Your task to perform on an android device: change alarm snooze length Image 0: 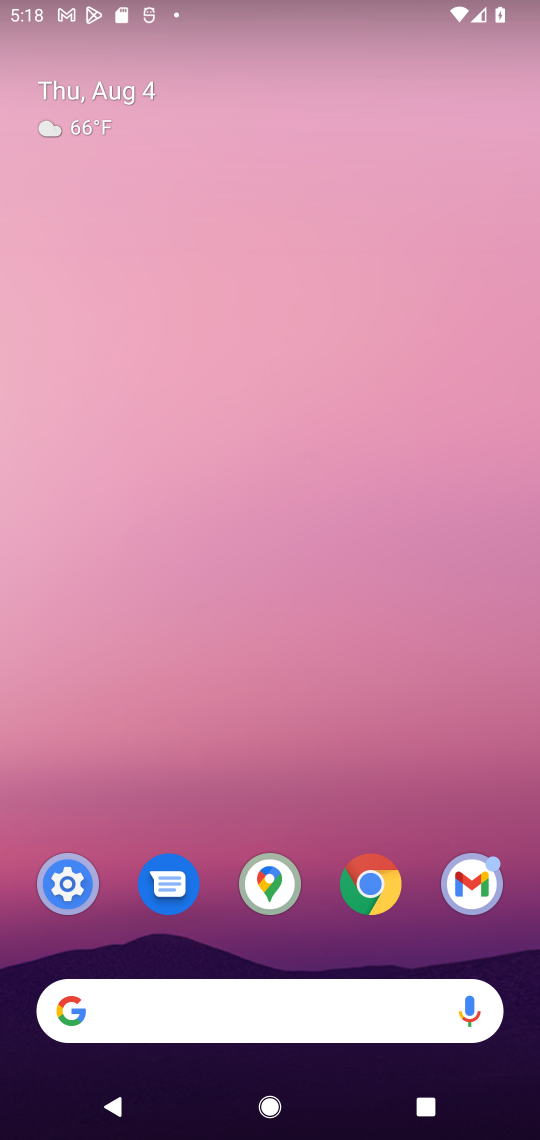
Step 0: drag from (212, 965) to (210, 323)
Your task to perform on an android device: change alarm snooze length Image 1: 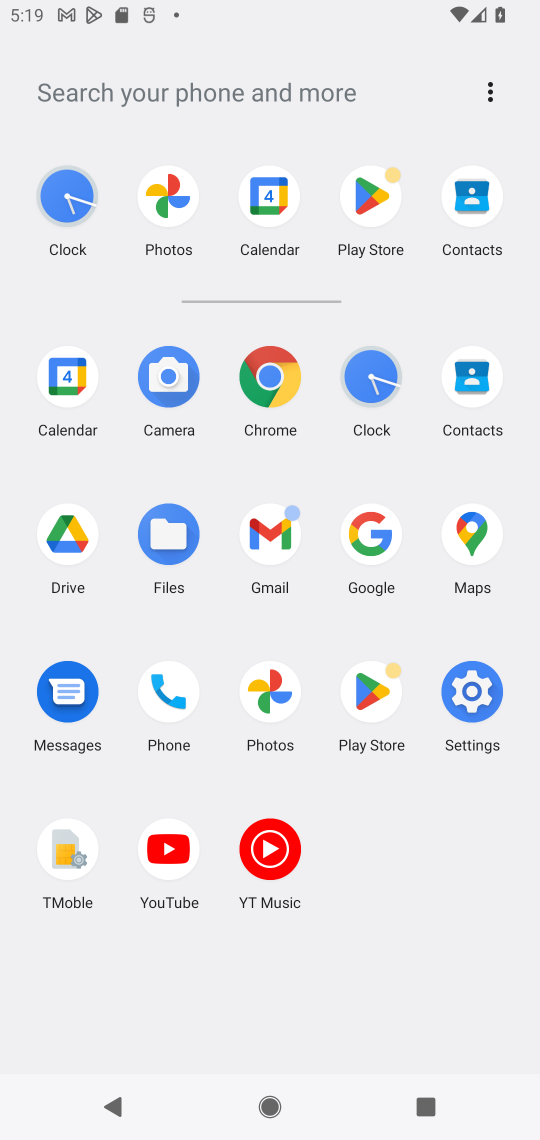
Step 1: click (479, 676)
Your task to perform on an android device: change alarm snooze length Image 2: 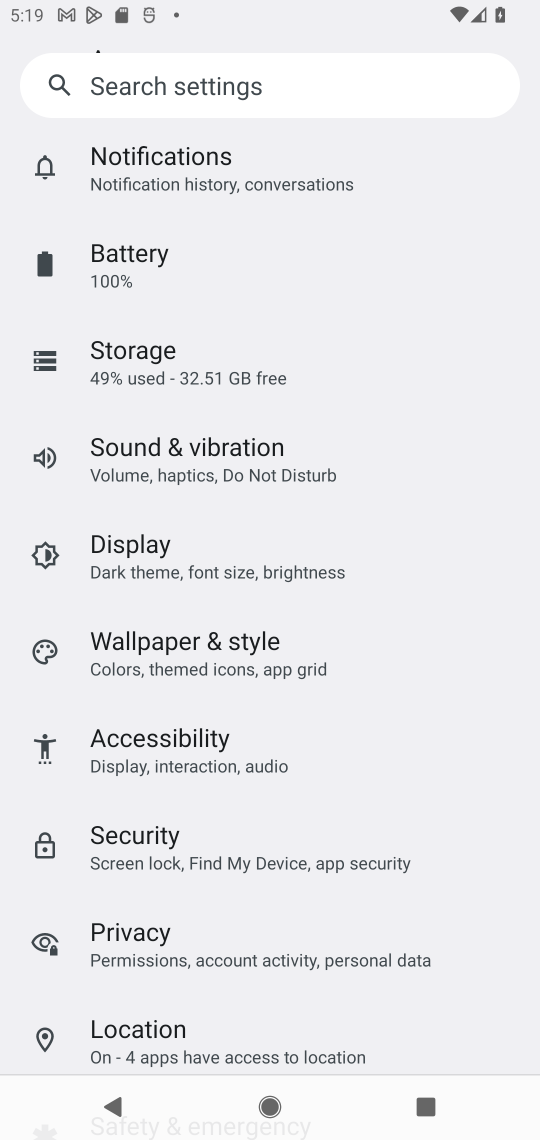
Step 2: press back button
Your task to perform on an android device: change alarm snooze length Image 3: 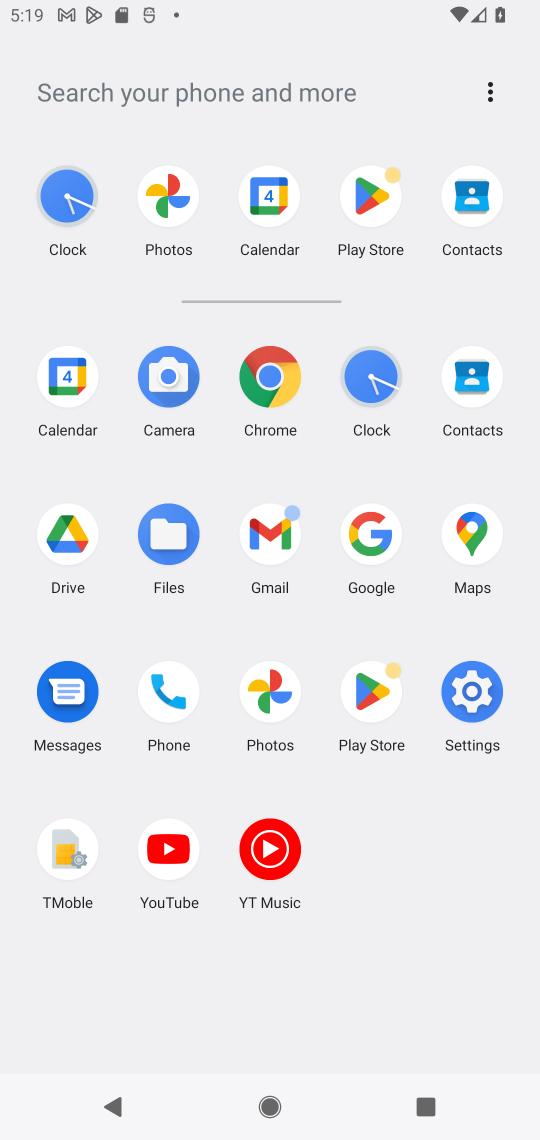
Step 3: click (371, 414)
Your task to perform on an android device: change alarm snooze length Image 4: 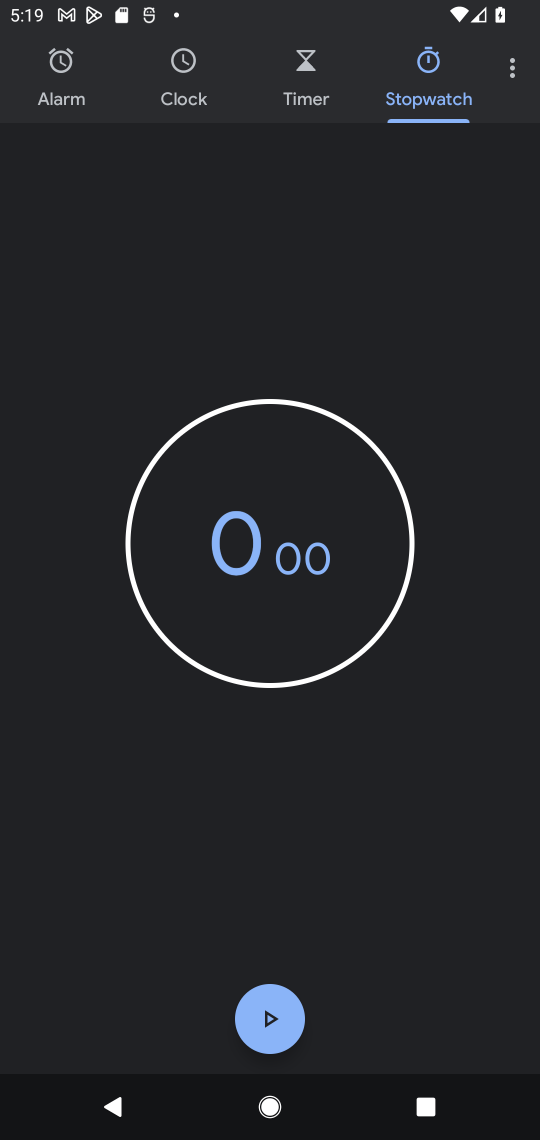
Step 4: click (516, 81)
Your task to perform on an android device: change alarm snooze length Image 5: 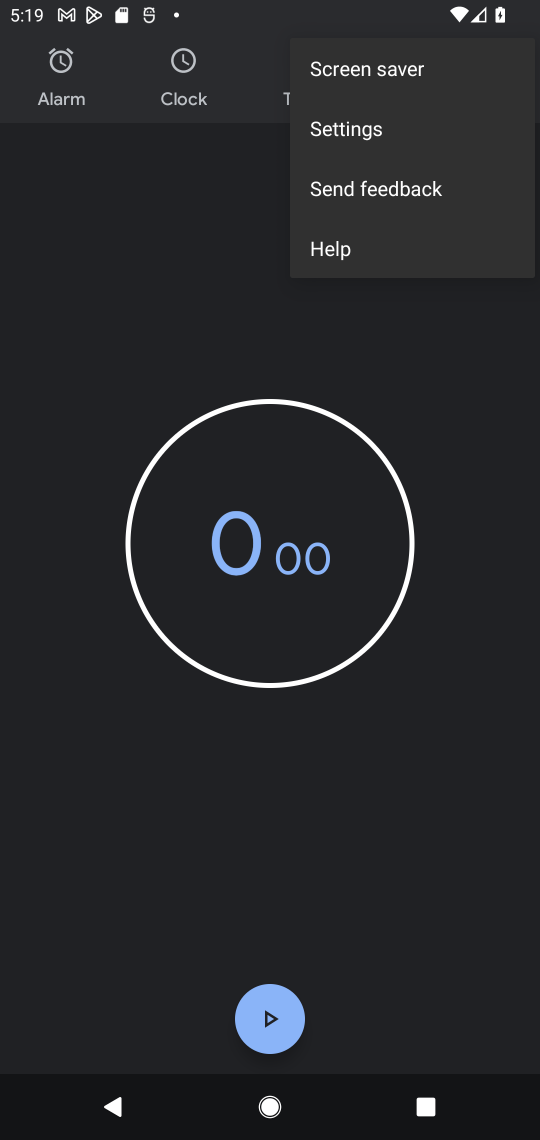
Step 5: click (368, 134)
Your task to perform on an android device: change alarm snooze length Image 6: 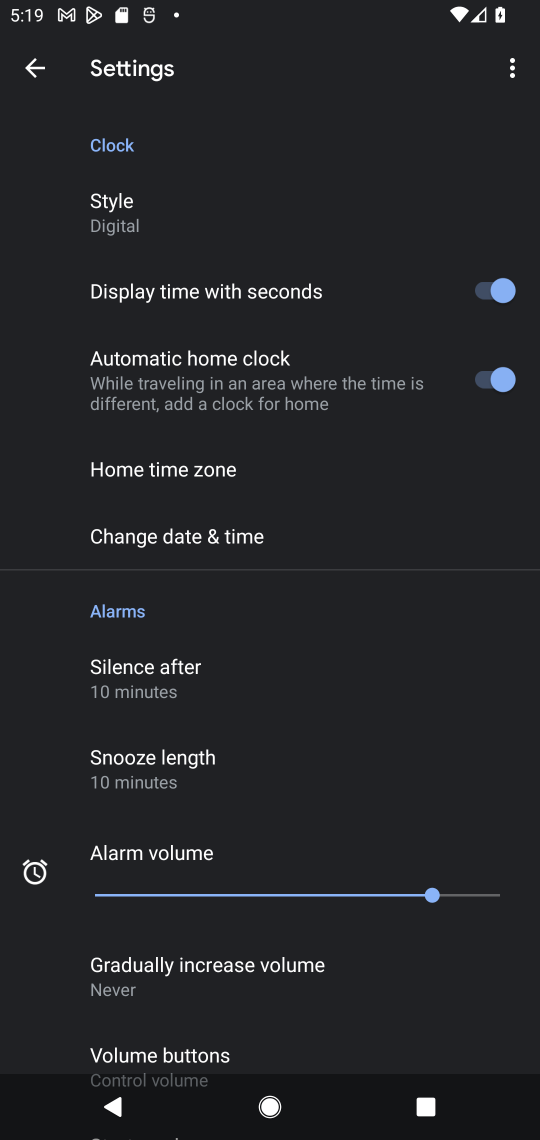
Step 6: click (219, 793)
Your task to perform on an android device: change alarm snooze length Image 7: 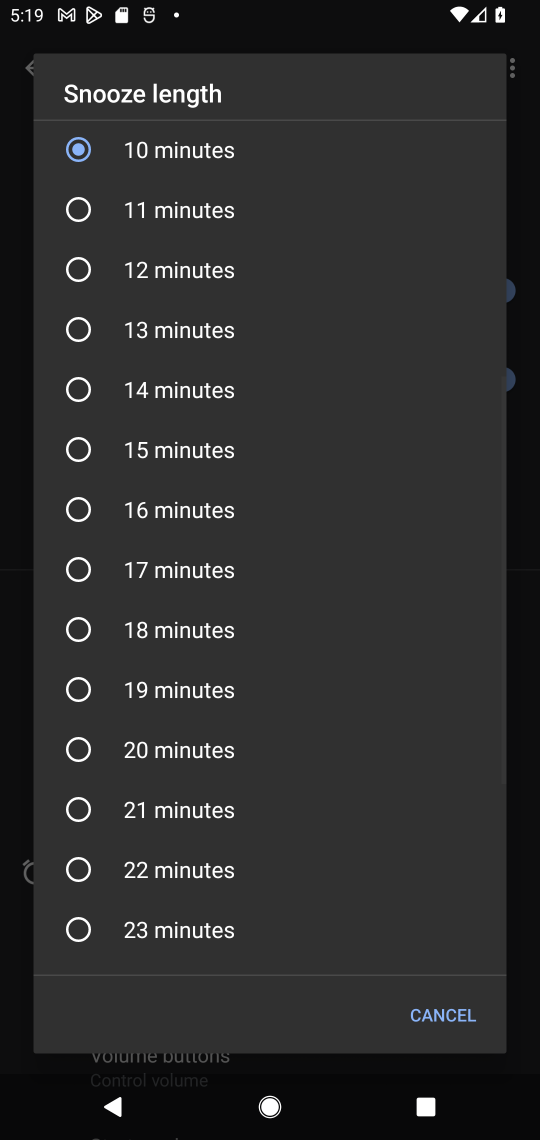
Step 7: click (198, 209)
Your task to perform on an android device: change alarm snooze length Image 8: 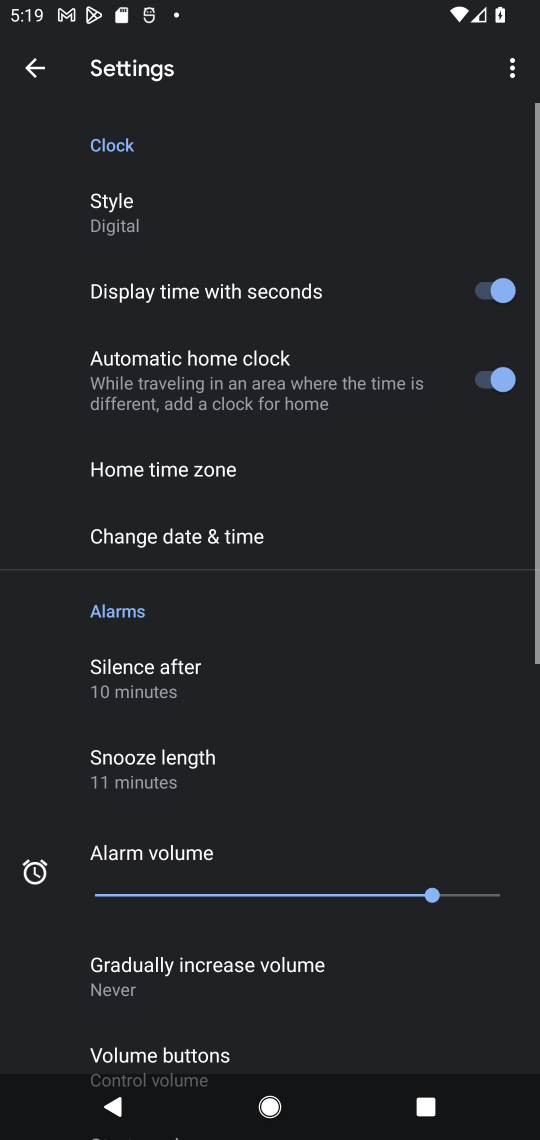
Step 8: task complete